Your task to perform on an android device: change alarm snooze length Image 0: 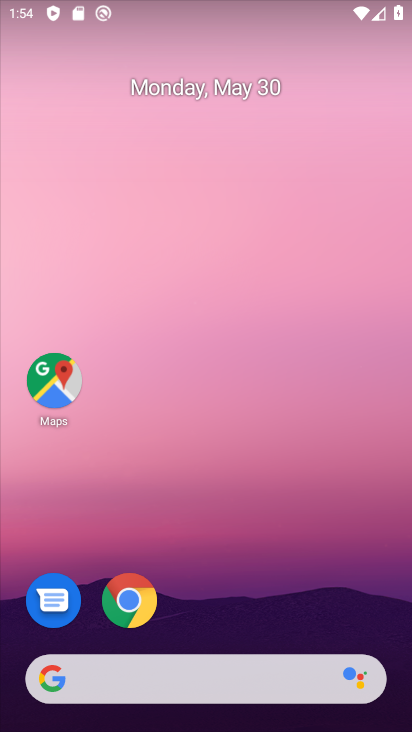
Step 0: drag from (277, 618) to (312, 85)
Your task to perform on an android device: change alarm snooze length Image 1: 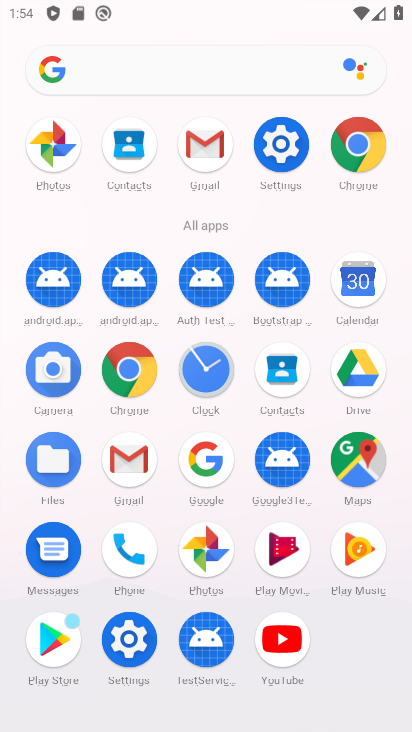
Step 1: click (213, 370)
Your task to perform on an android device: change alarm snooze length Image 2: 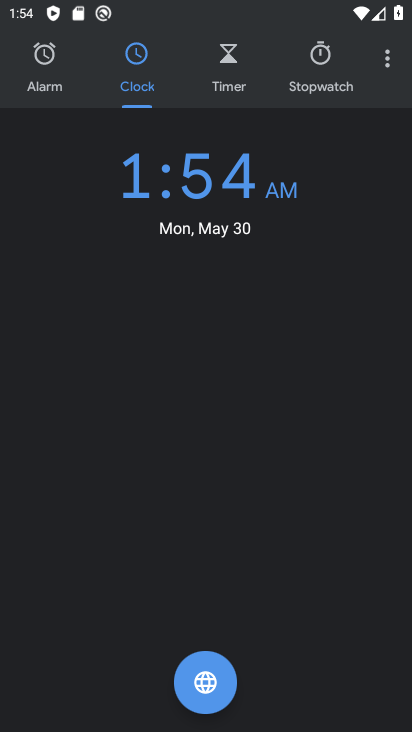
Step 2: click (396, 63)
Your task to perform on an android device: change alarm snooze length Image 3: 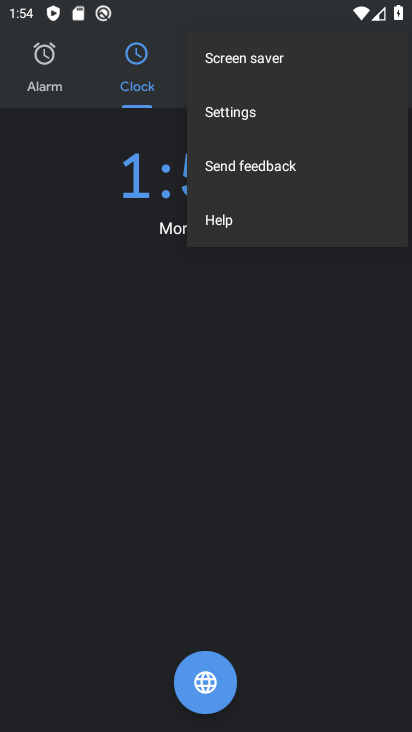
Step 3: click (251, 115)
Your task to perform on an android device: change alarm snooze length Image 4: 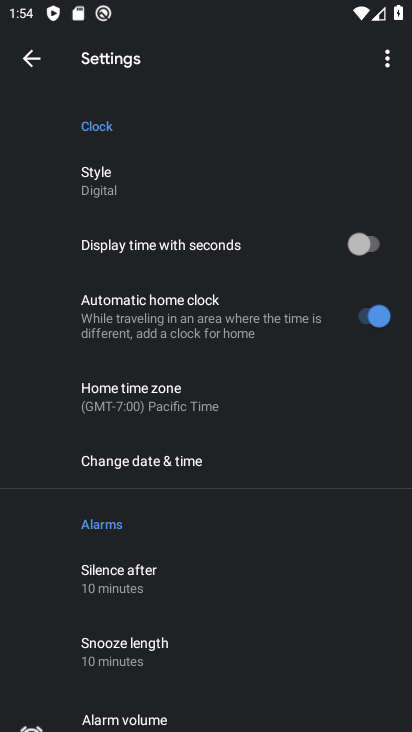
Step 4: click (142, 646)
Your task to perform on an android device: change alarm snooze length Image 5: 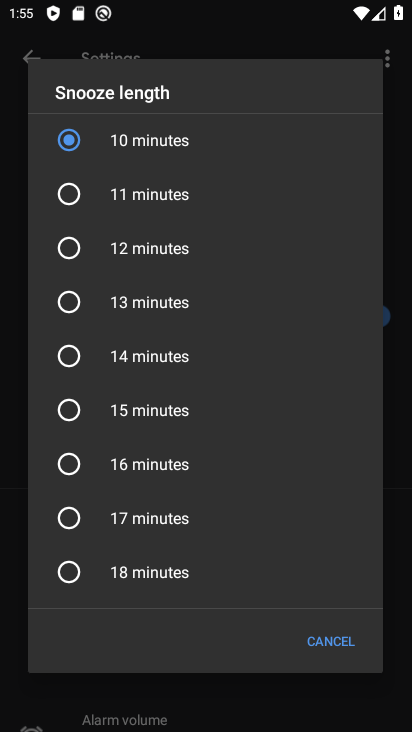
Step 5: drag from (209, 161) to (204, 380)
Your task to perform on an android device: change alarm snooze length Image 6: 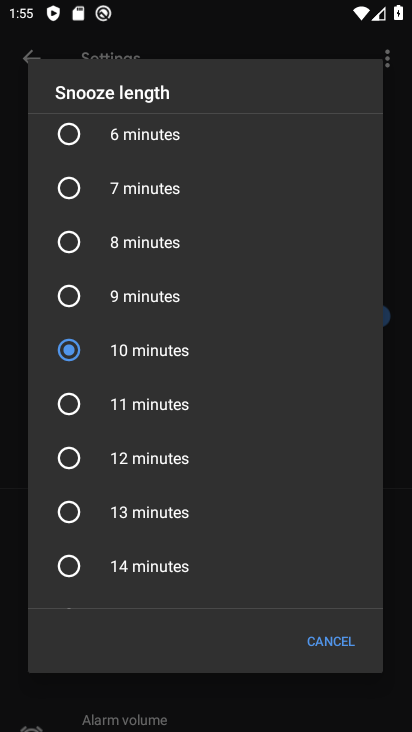
Step 6: click (73, 134)
Your task to perform on an android device: change alarm snooze length Image 7: 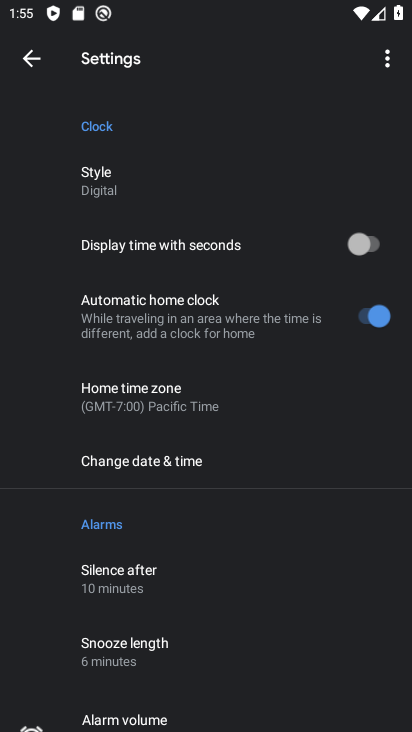
Step 7: task complete